Your task to perform on an android device: add a label to a message in the gmail app Image 0: 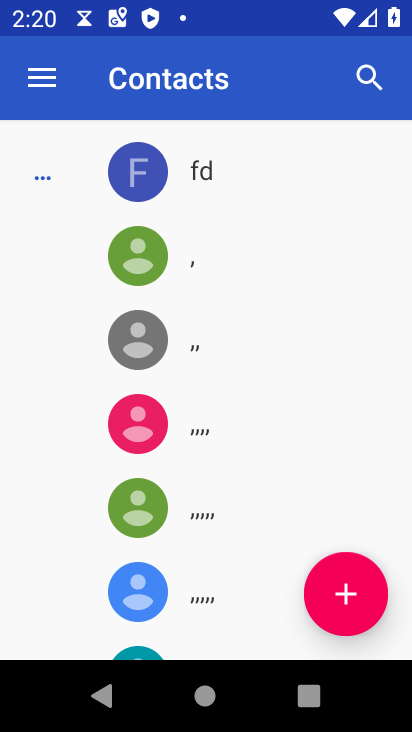
Step 0: press home button
Your task to perform on an android device: add a label to a message in the gmail app Image 1: 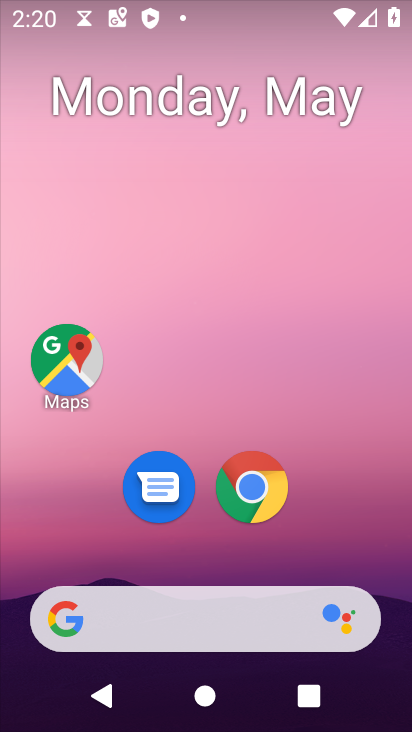
Step 1: drag from (382, 539) to (275, 60)
Your task to perform on an android device: add a label to a message in the gmail app Image 2: 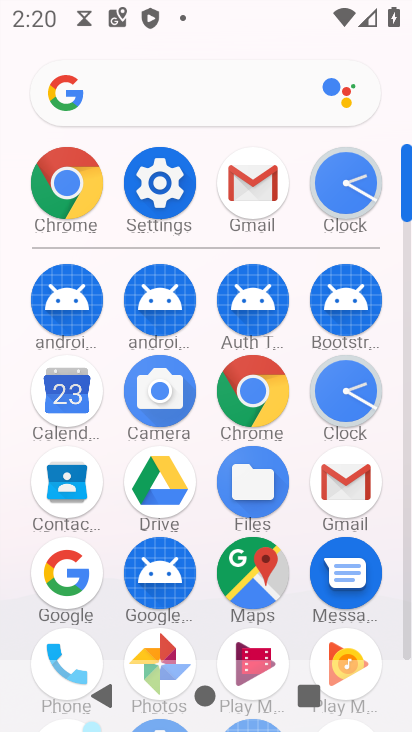
Step 2: click (268, 178)
Your task to perform on an android device: add a label to a message in the gmail app Image 3: 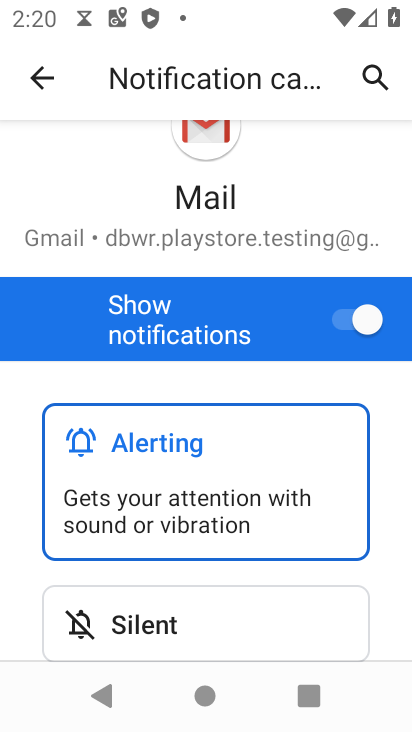
Step 3: drag from (395, 619) to (353, 210)
Your task to perform on an android device: add a label to a message in the gmail app Image 4: 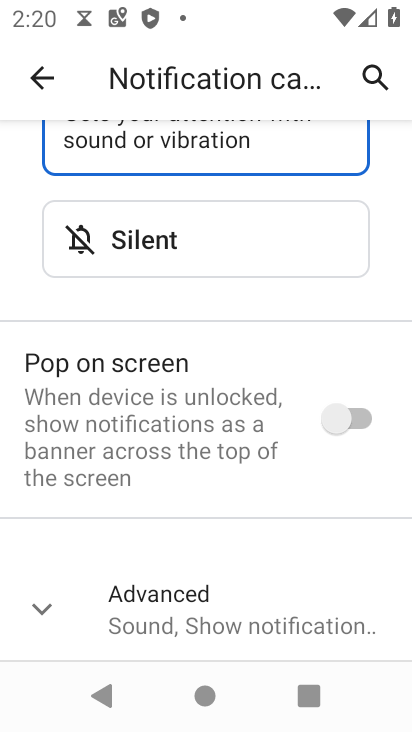
Step 4: click (59, 75)
Your task to perform on an android device: add a label to a message in the gmail app Image 5: 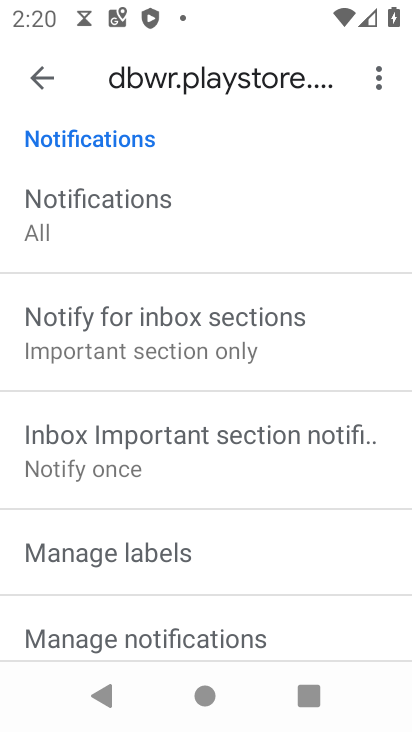
Step 5: click (59, 75)
Your task to perform on an android device: add a label to a message in the gmail app Image 6: 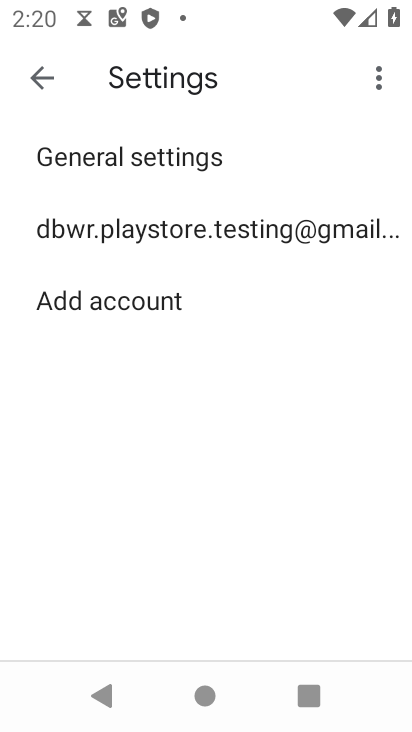
Step 6: click (59, 75)
Your task to perform on an android device: add a label to a message in the gmail app Image 7: 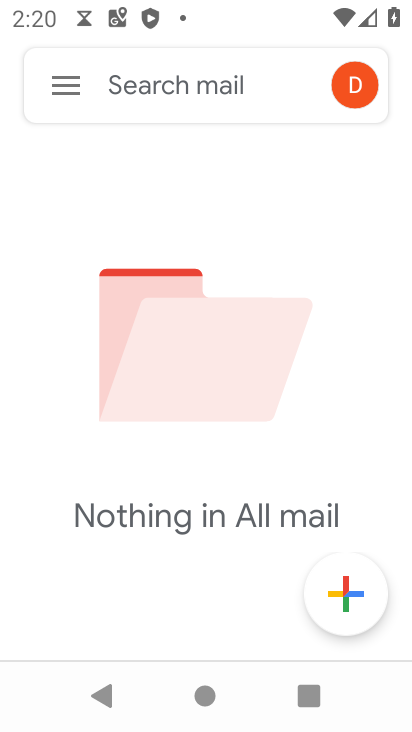
Step 7: click (59, 75)
Your task to perform on an android device: add a label to a message in the gmail app Image 8: 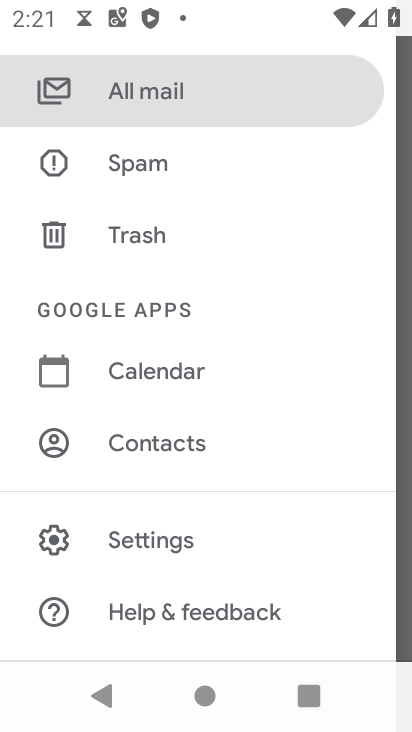
Step 8: drag from (269, 168) to (236, 716)
Your task to perform on an android device: add a label to a message in the gmail app Image 9: 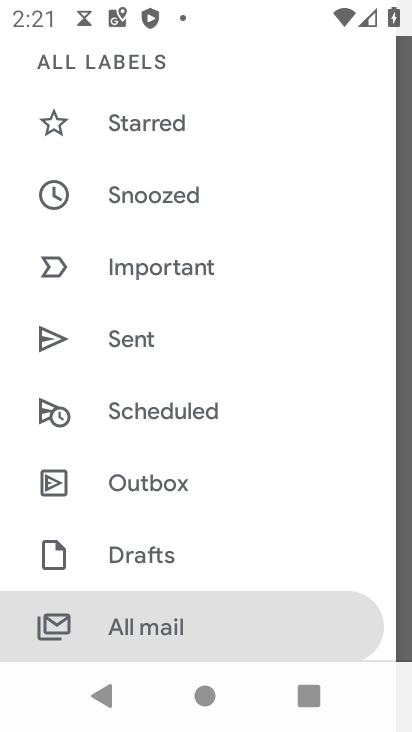
Step 9: drag from (242, 186) to (233, 247)
Your task to perform on an android device: add a label to a message in the gmail app Image 10: 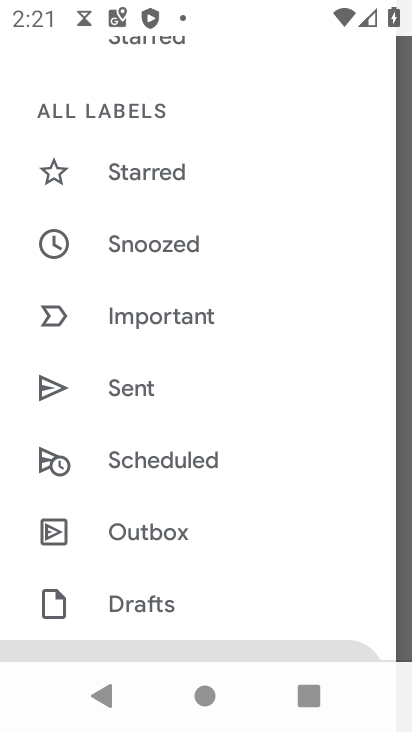
Step 10: drag from (270, 623) to (275, 267)
Your task to perform on an android device: add a label to a message in the gmail app Image 11: 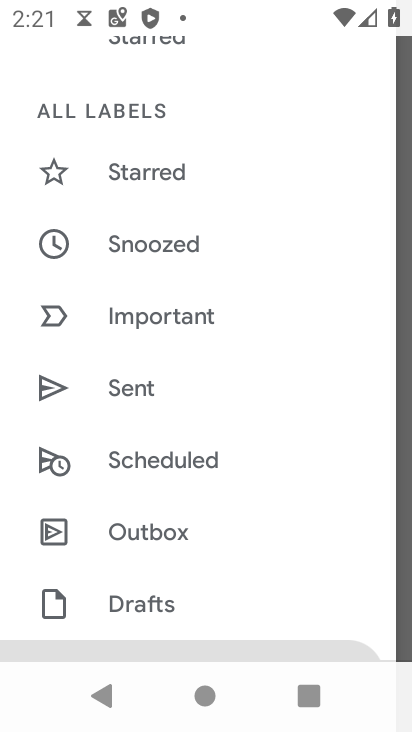
Step 11: drag from (205, 560) to (183, 215)
Your task to perform on an android device: add a label to a message in the gmail app Image 12: 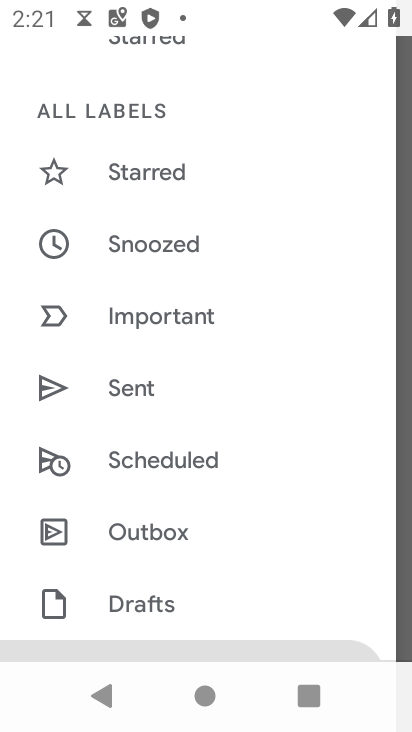
Step 12: drag from (231, 571) to (224, 215)
Your task to perform on an android device: add a label to a message in the gmail app Image 13: 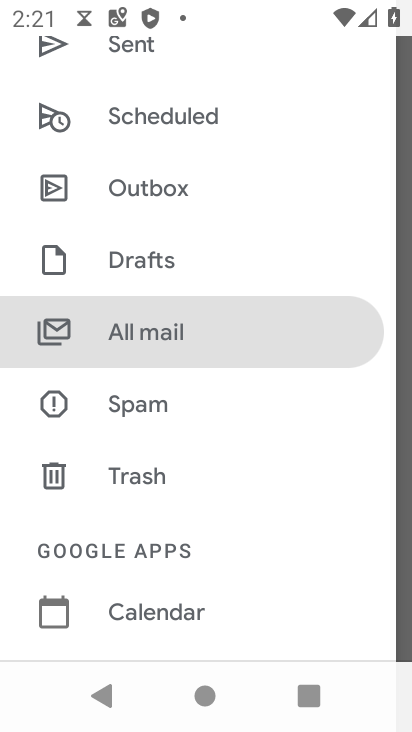
Step 13: click (208, 317)
Your task to perform on an android device: add a label to a message in the gmail app Image 14: 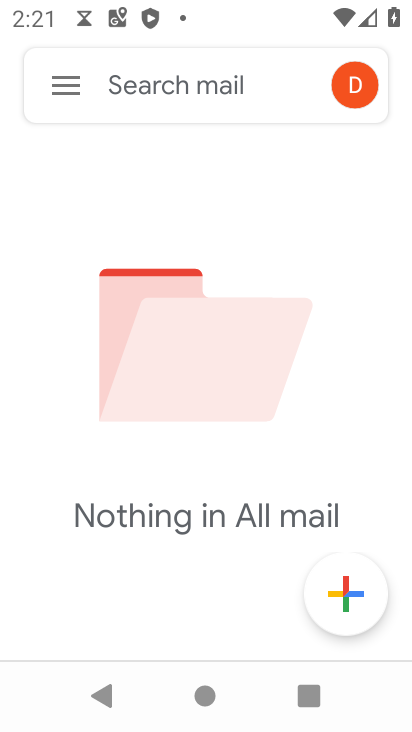
Step 14: task complete